Your task to perform on an android device: Go to Amazon Image 0: 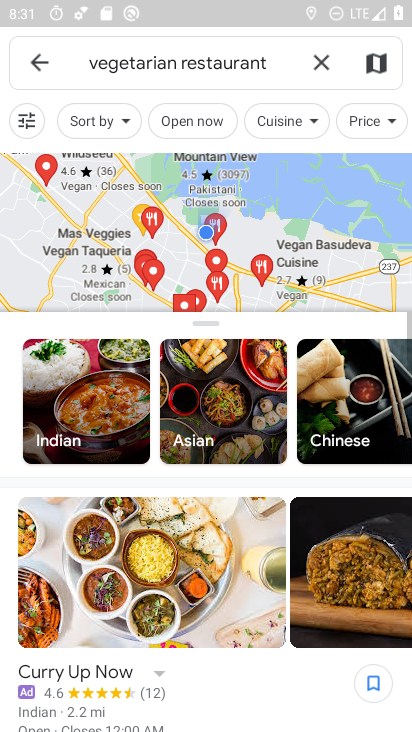
Step 0: press back button
Your task to perform on an android device: Go to Amazon Image 1: 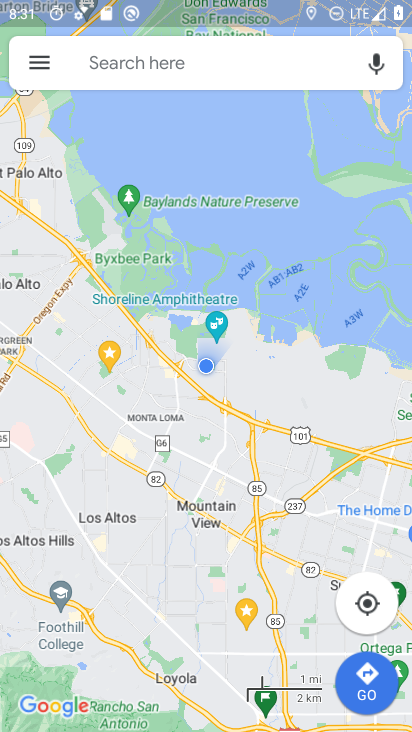
Step 1: press back button
Your task to perform on an android device: Go to Amazon Image 2: 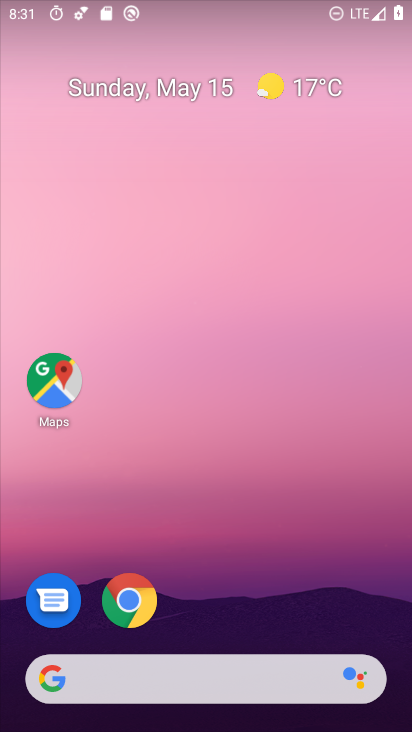
Step 2: click (126, 594)
Your task to perform on an android device: Go to Amazon Image 3: 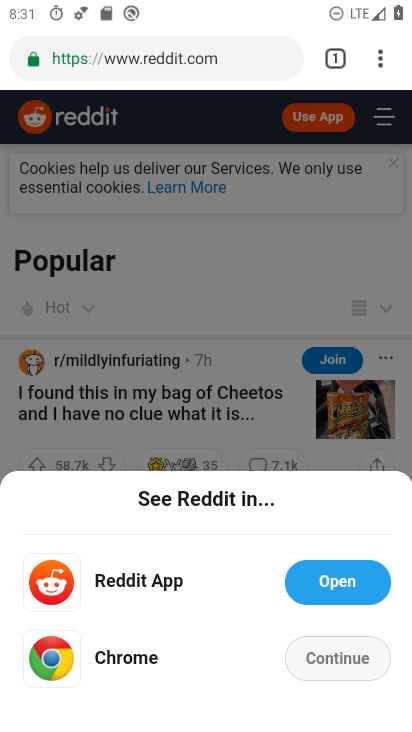
Step 3: click (235, 64)
Your task to perform on an android device: Go to Amazon Image 4: 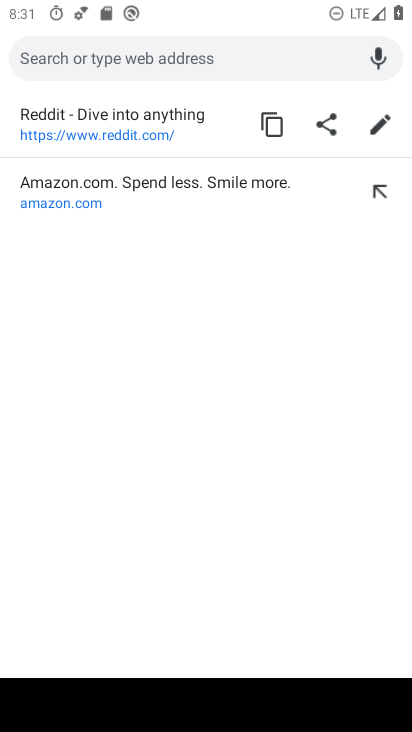
Step 4: click (47, 197)
Your task to perform on an android device: Go to Amazon Image 5: 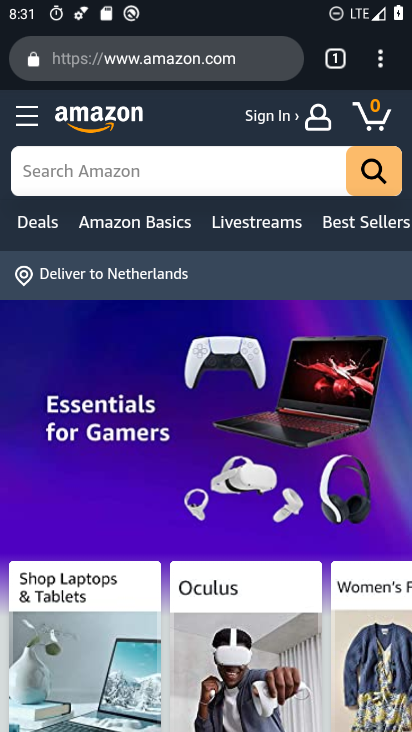
Step 5: task complete